Your task to perform on an android device: turn off priority inbox in the gmail app Image 0: 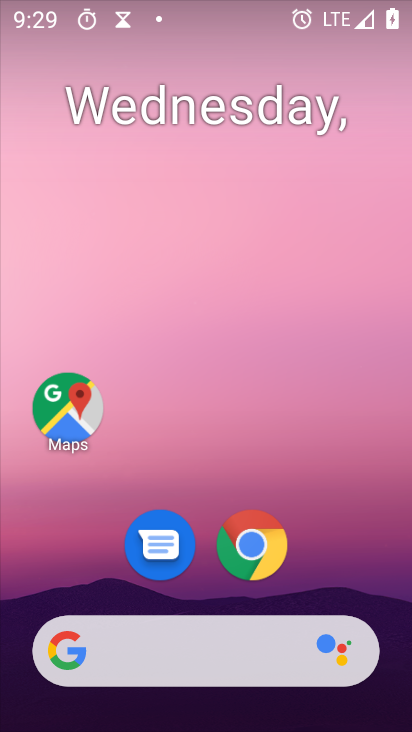
Step 0: press home button
Your task to perform on an android device: turn off priority inbox in the gmail app Image 1: 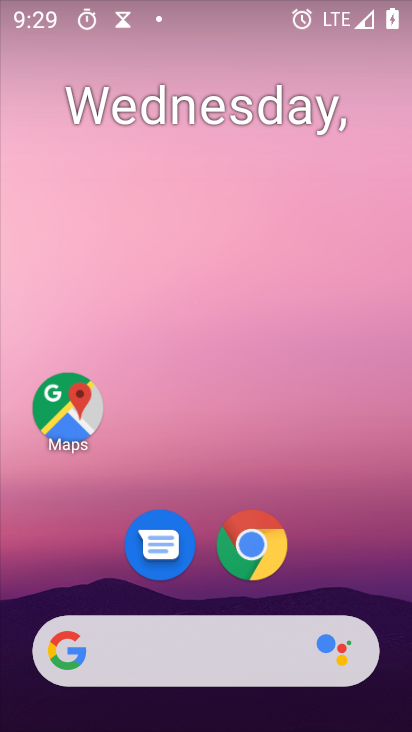
Step 1: drag from (203, 625) to (336, 118)
Your task to perform on an android device: turn off priority inbox in the gmail app Image 2: 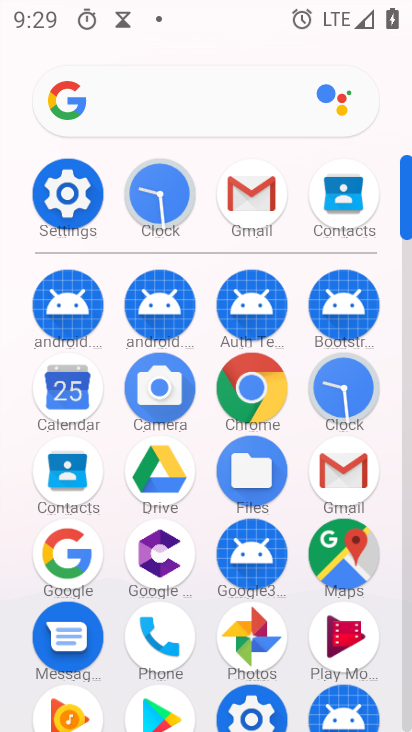
Step 2: click (250, 202)
Your task to perform on an android device: turn off priority inbox in the gmail app Image 3: 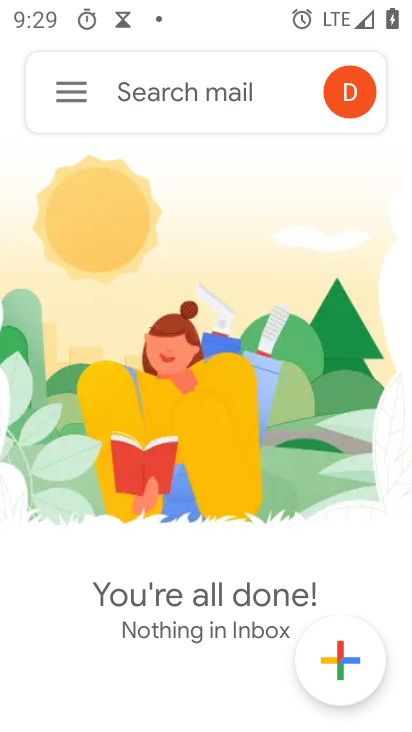
Step 3: click (69, 87)
Your task to perform on an android device: turn off priority inbox in the gmail app Image 4: 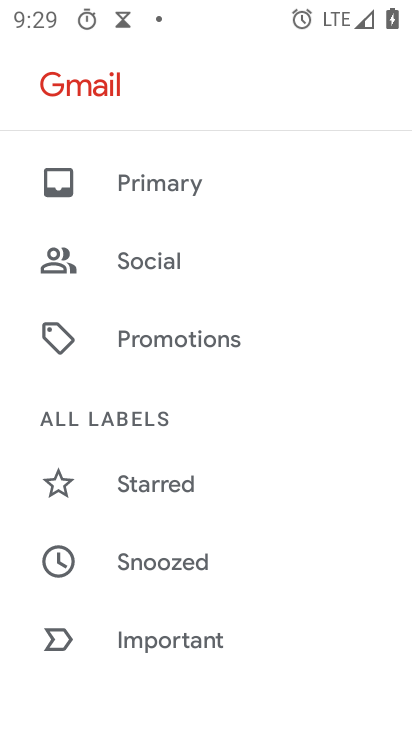
Step 4: drag from (227, 623) to (301, 161)
Your task to perform on an android device: turn off priority inbox in the gmail app Image 5: 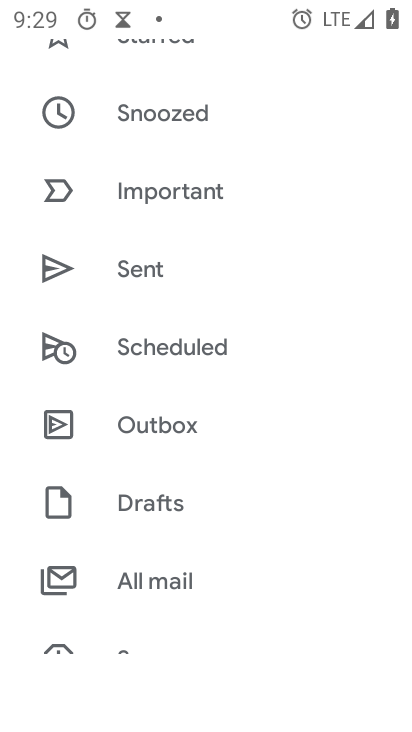
Step 5: drag from (233, 663) to (357, 125)
Your task to perform on an android device: turn off priority inbox in the gmail app Image 6: 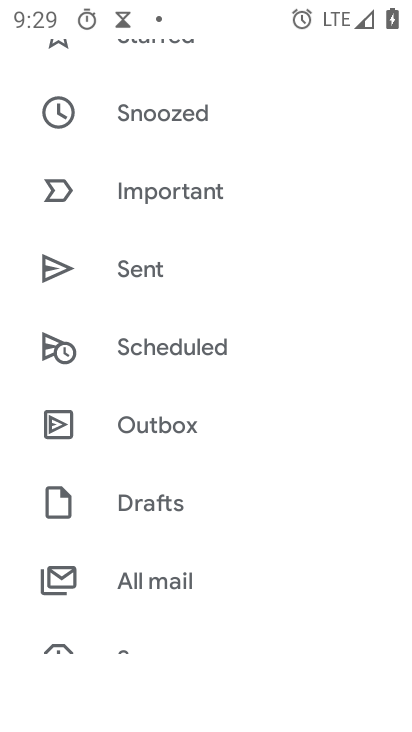
Step 6: drag from (200, 604) to (281, 78)
Your task to perform on an android device: turn off priority inbox in the gmail app Image 7: 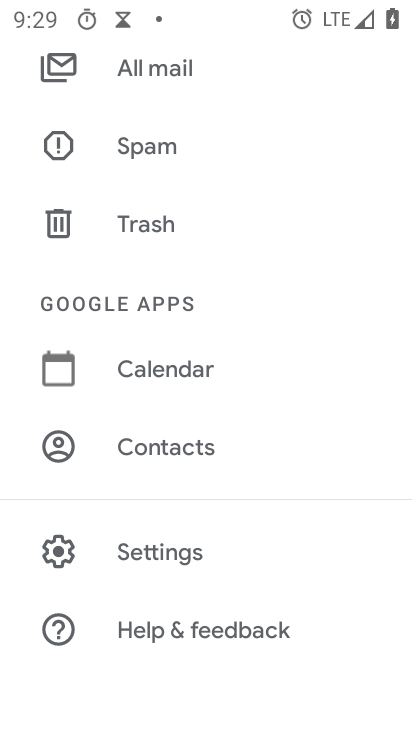
Step 7: click (169, 557)
Your task to perform on an android device: turn off priority inbox in the gmail app Image 8: 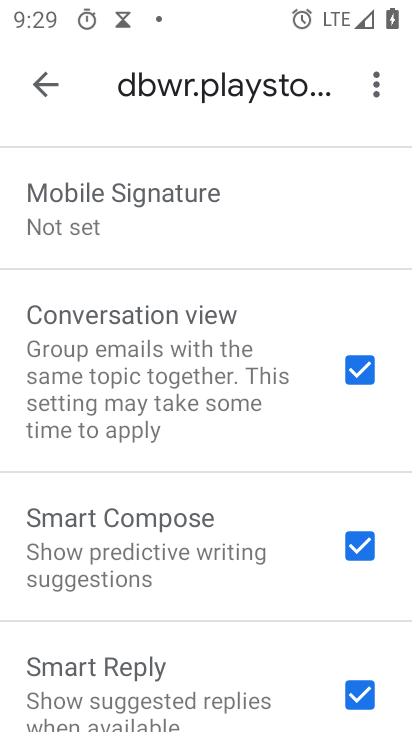
Step 8: drag from (287, 201) to (215, 614)
Your task to perform on an android device: turn off priority inbox in the gmail app Image 9: 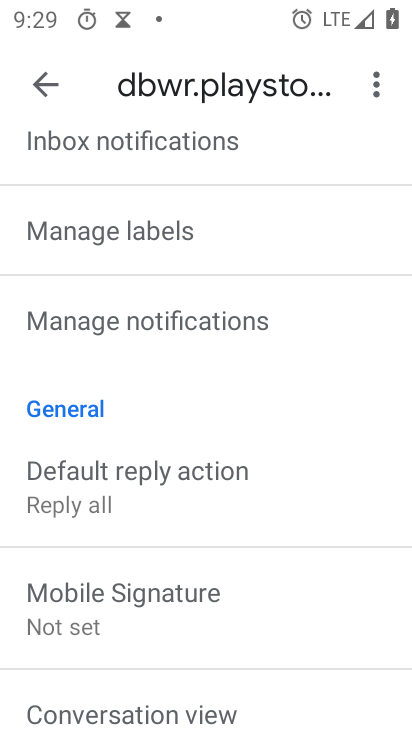
Step 9: drag from (303, 269) to (232, 642)
Your task to perform on an android device: turn off priority inbox in the gmail app Image 10: 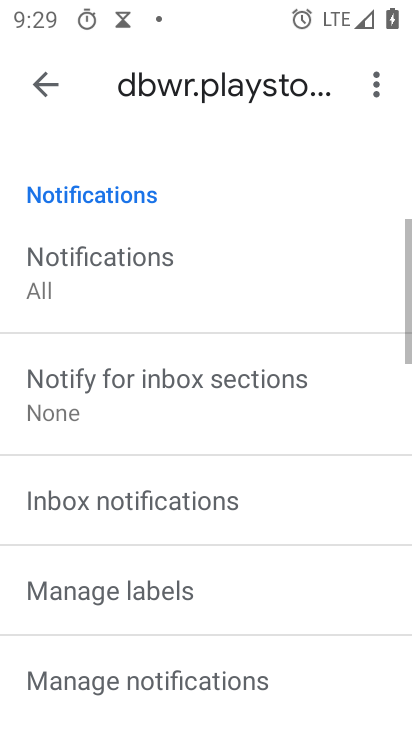
Step 10: drag from (267, 246) to (216, 636)
Your task to perform on an android device: turn off priority inbox in the gmail app Image 11: 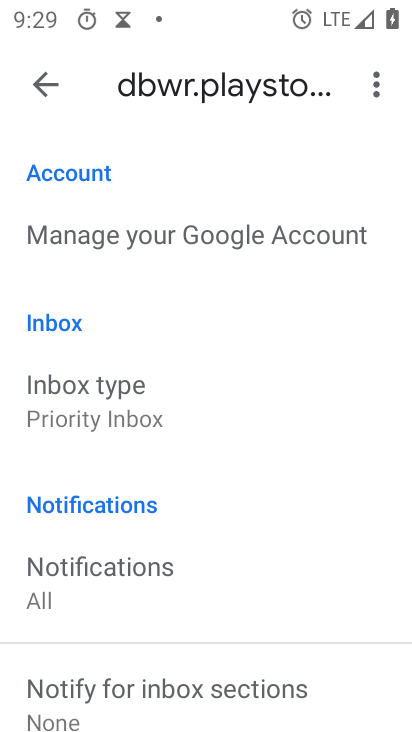
Step 11: click (117, 401)
Your task to perform on an android device: turn off priority inbox in the gmail app Image 12: 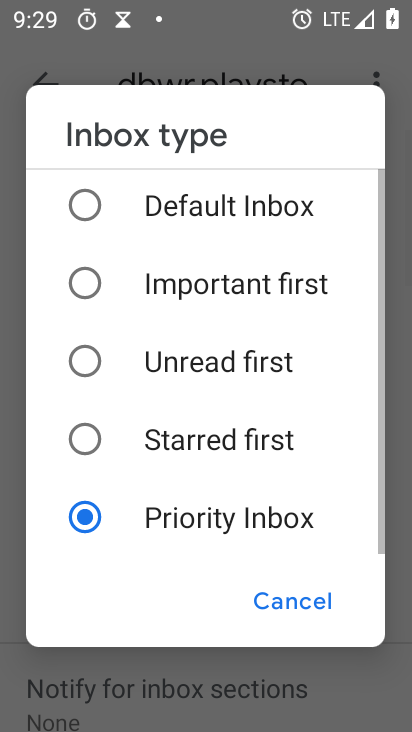
Step 12: click (84, 212)
Your task to perform on an android device: turn off priority inbox in the gmail app Image 13: 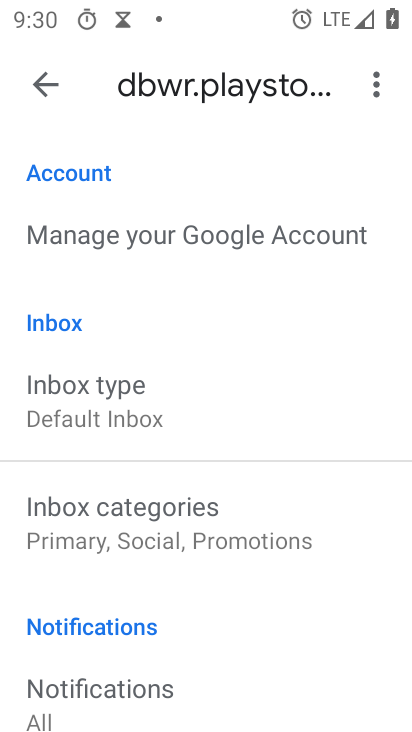
Step 13: task complete